Your task to perform on an android device: Go to wifi settings Image 0: 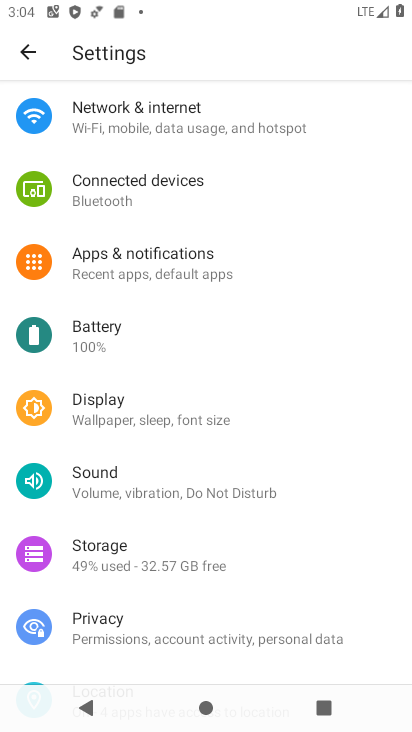
Step 0: click (196, 133)
Your task to perform on an android device: Go to wifi settings Image 1: 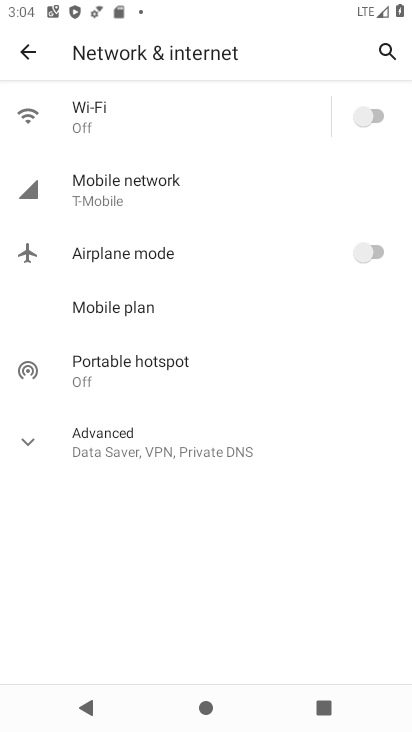
Step 1: click (141, 112)
Your task to perform on an android device: Go to wifi settings Image 2: 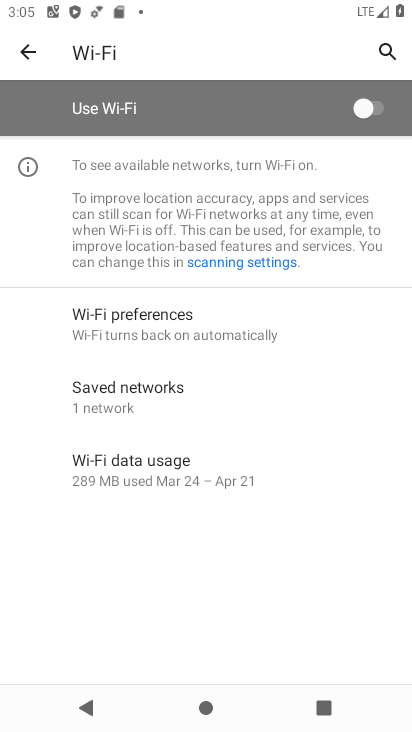
Step 2: task complete